Your task to perform on an android device: see creations saved in the google photos Image 0: 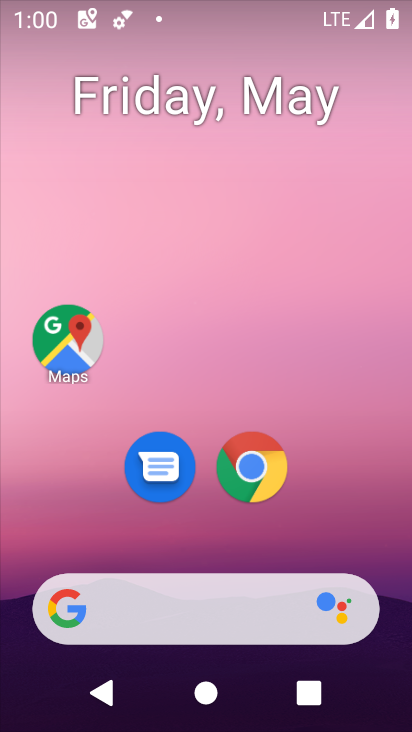
Step 0: drag from (338, 495) to (286, 11)
Your task to perform on an android device: see creations saved in the google photos Image 1: 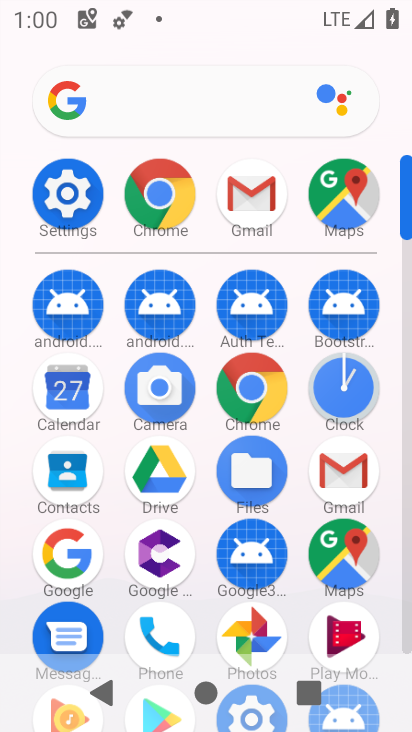
Step 1: click (252, 647)
Your task to perform on an android device: see creations saved in the google photos Image 2: 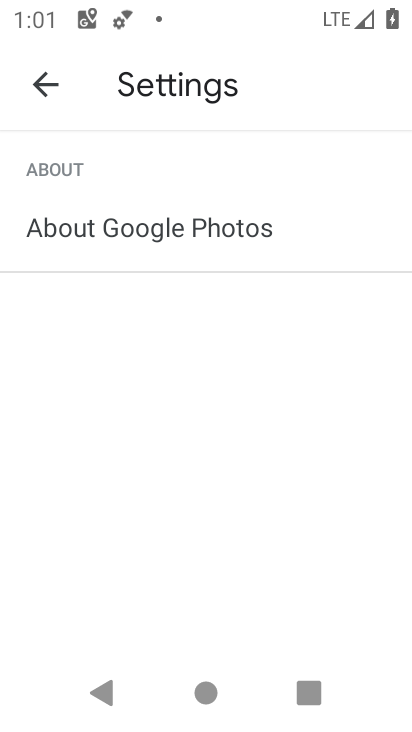
Step 2: press home button
Your task to perform on an android device: see creations saved in the google photos Image 3: 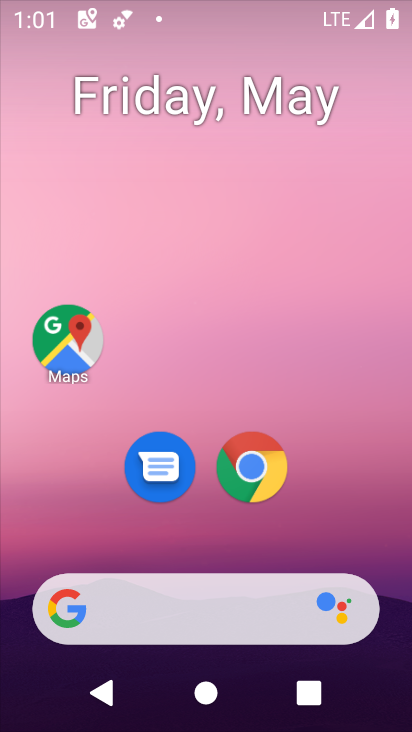
Step 3: drag from (325, 539) to (293, 69)
Your task to perform on an android device: see creations saved in the google photos Image 4: 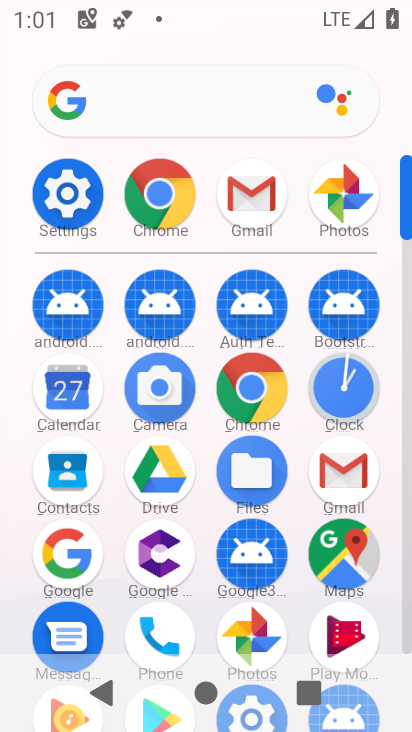
Step 4: click (339, 202)
Your task to perform on an android device: see creations saved in the google photos Image 5: 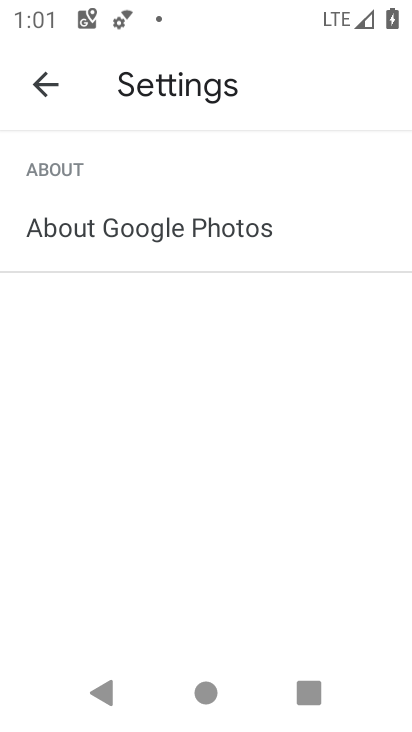
Step 5: click (30, 68)
Your task to perform on an android device: see creations saved in the google photos Image 6: 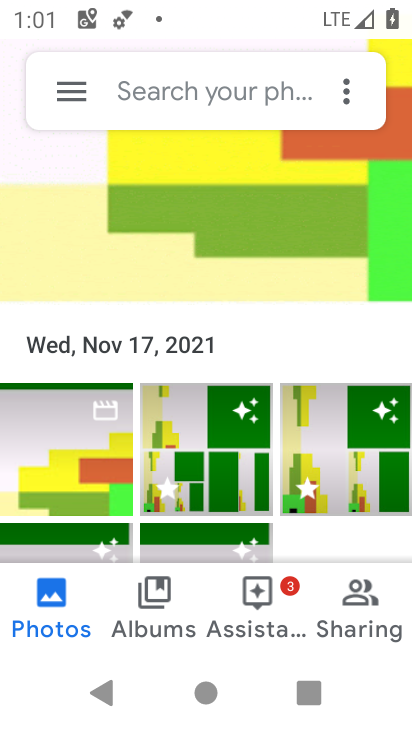
Step 6: click (133, 593)
Your task to perform on an android device: see creations saved in the google photos Image 7: 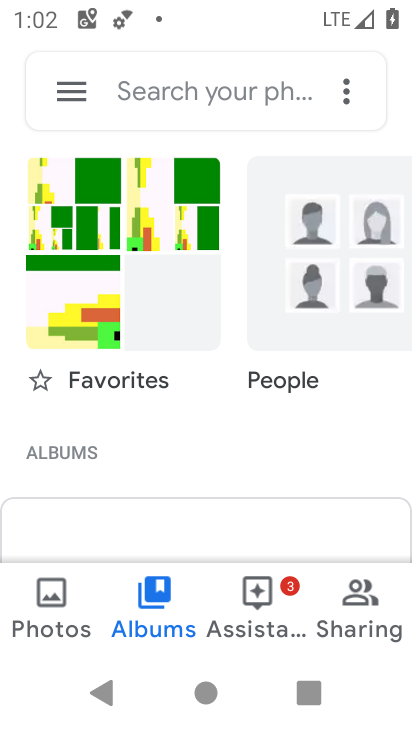
Step 7: task complete